Your task to perform on an android device: clear history in the chrome app Image 0: 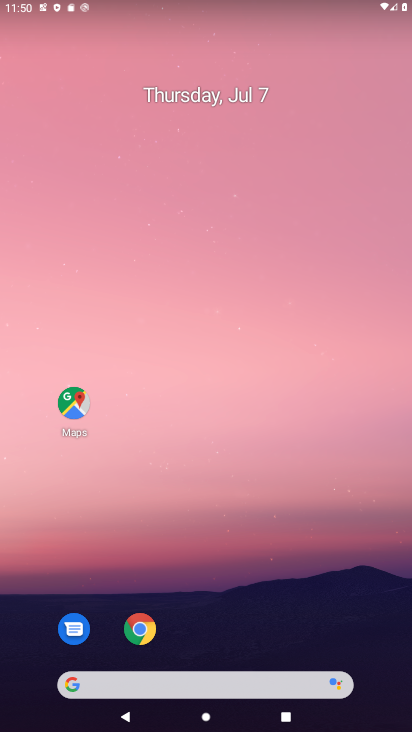
Step 0: click (142, 627)
Your task to perform on an android device: clear history in the chrome app Image 1: 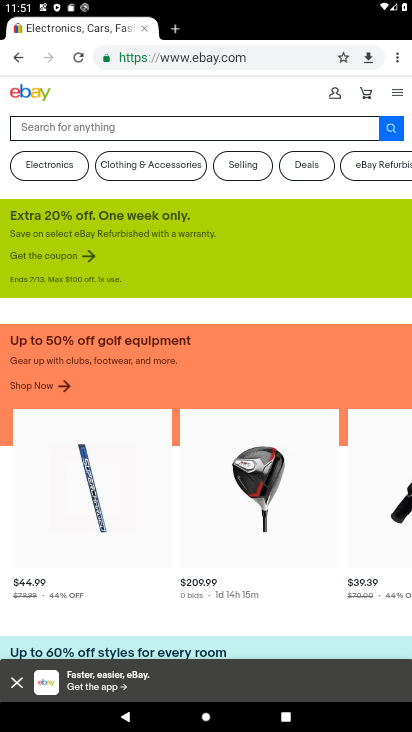
Step 1: click (398, 61)
Your task to perform on an android device: clear history in the chrome app Image 2: 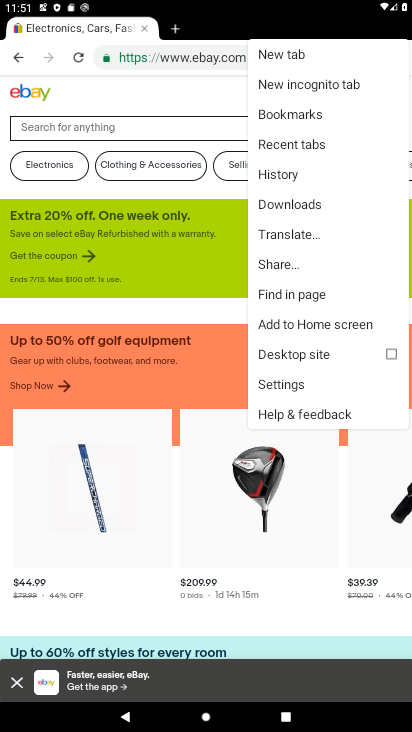
Step 2: click (281, 179)
Your task to perform on an android device: clear history in the chrome app Image 3: 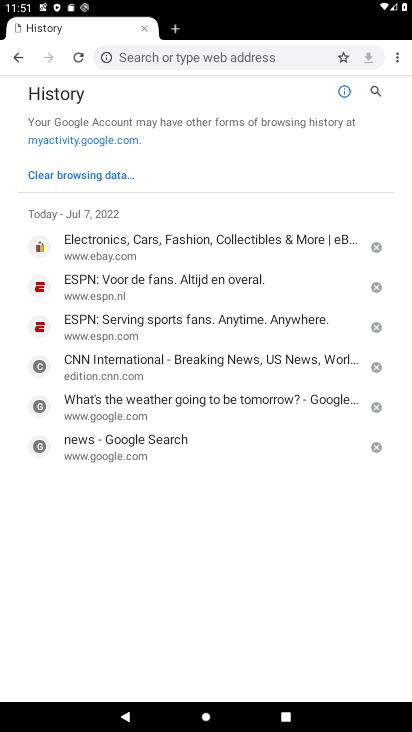
Step 3: click (84, 175)
Your task to perform on an android device: clear history in the chrome app Image 4: 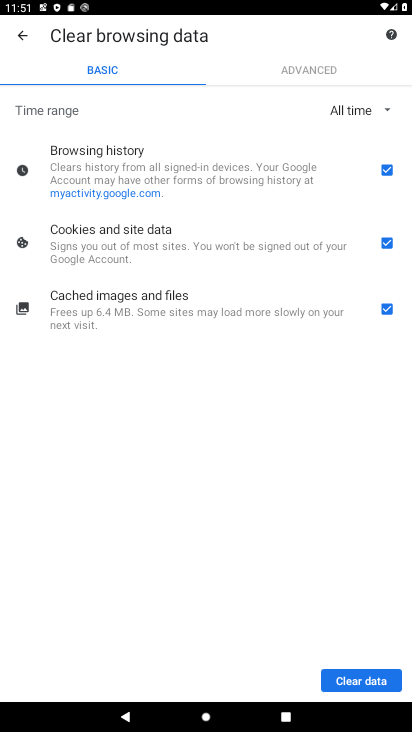
Step 4: click (387, 240)
Your task to perform on an android device: clear history in the chrome app Image 5: 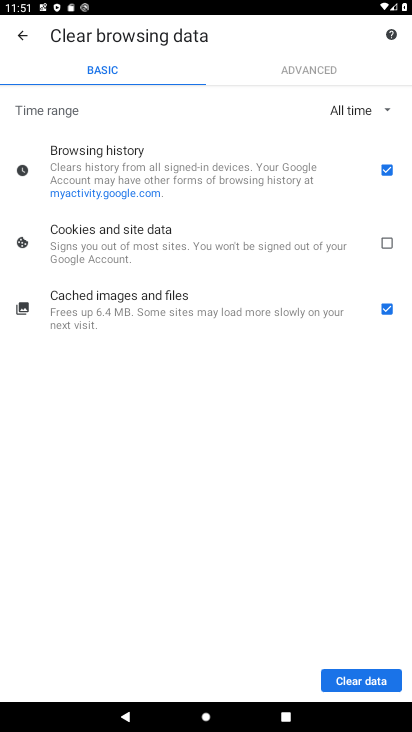
Step 5: click (384, 311)
Your task to perform on an android device: clear history in the chrome app Image 6: 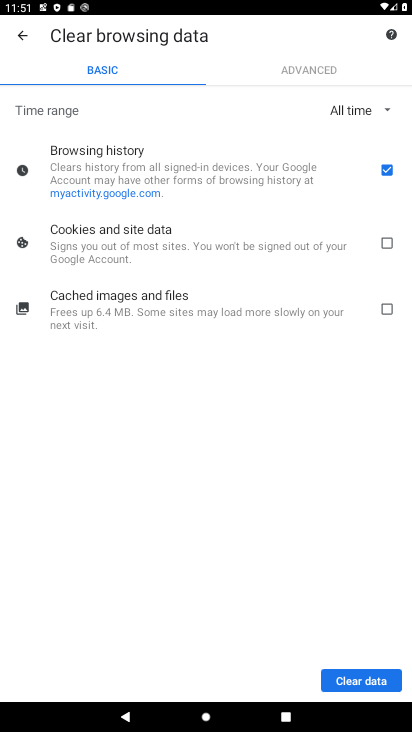
Step 6: click (360, 685)
Your task to perform on an android device: clear history in the chrome app Image 7: 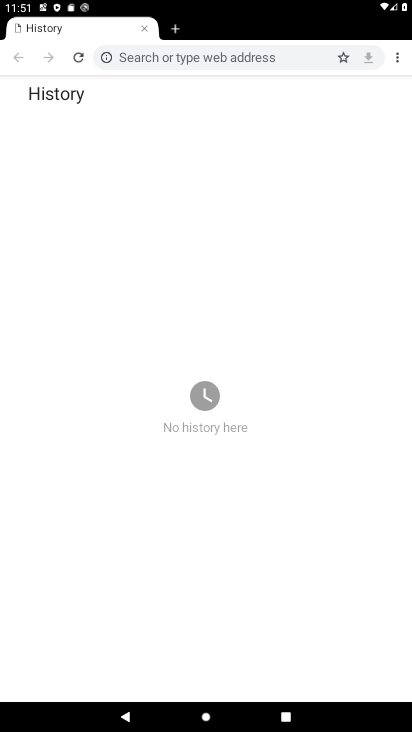
Step 7: task complete